Your task to perform on an android device: delete browsing data in the chrome app Image 0: 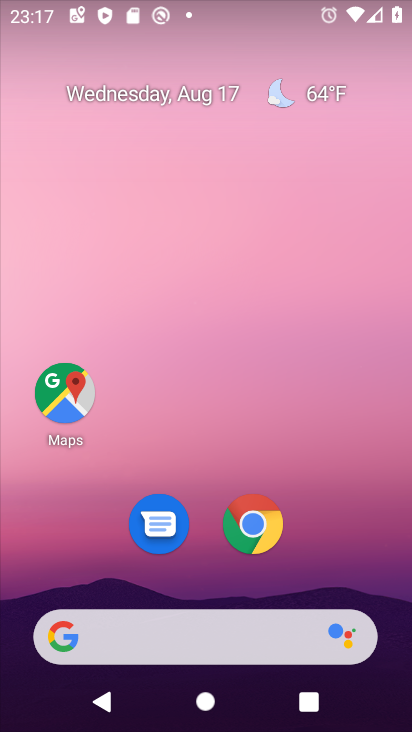
Step 0: click (255, 521)
Your task to perform on an android device: delete browsing data in the chrome app Image 1: 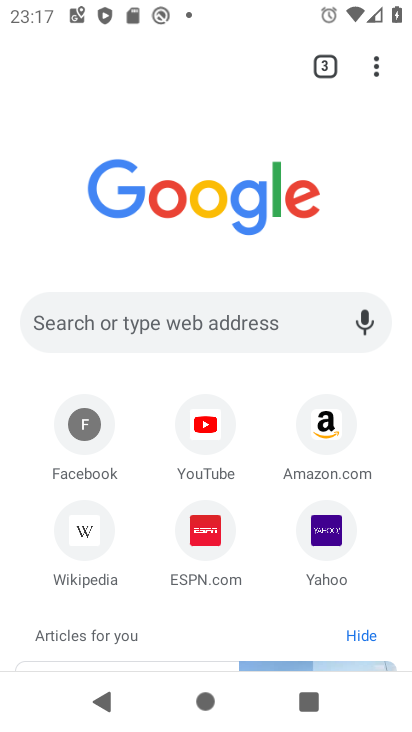
Step 1: click (375, 65)
Your task to perform on an android device: delete browsing data in the chrome app Image 2: 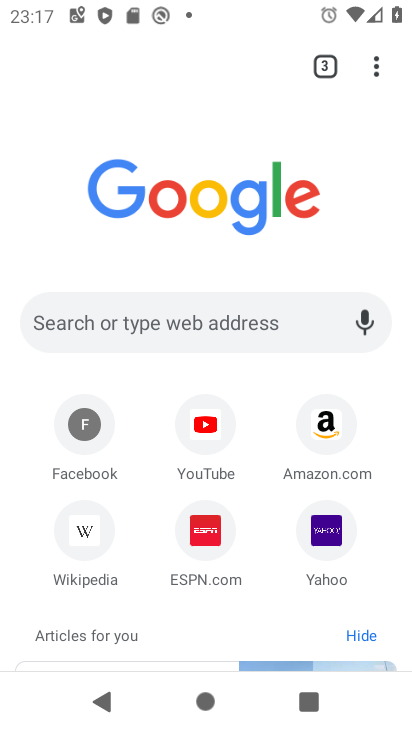
Step 2: click (375, 65)
Your task to perform on an android device: delete browsing data in the chrome app Image 3: 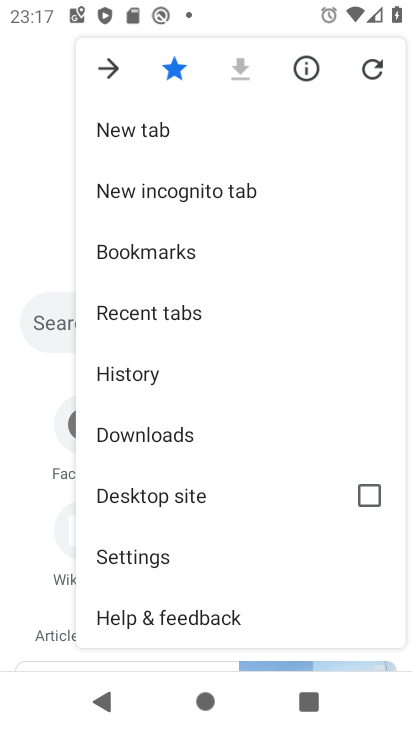
Step 3: click (149, 378)
Your task to perform on an android device: delete browsing data in the chrome app Image 4: 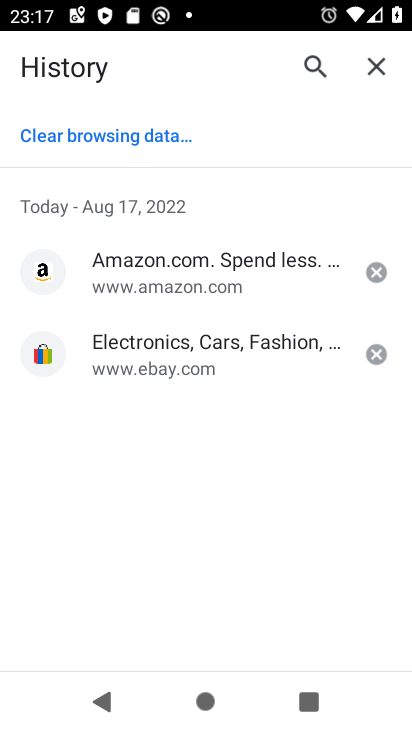
Step 4: click (125, 130)
Your task to perform on an android device: delete browsing data in the chrome app Image 5: 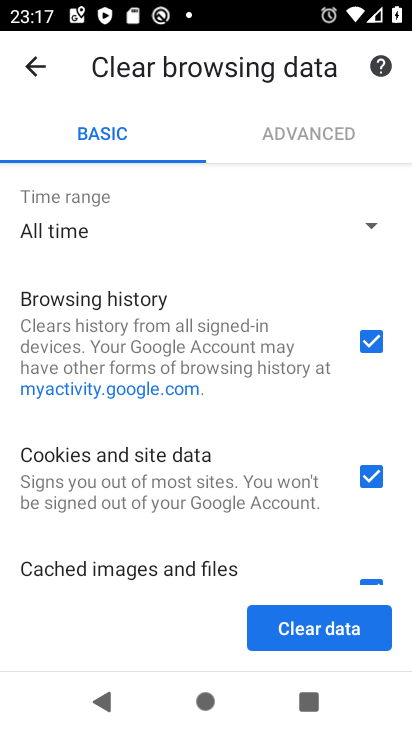
Step 5: click (316, 628)
Your task to perform on an android device: delete browsing data in the chrome app Image 6: 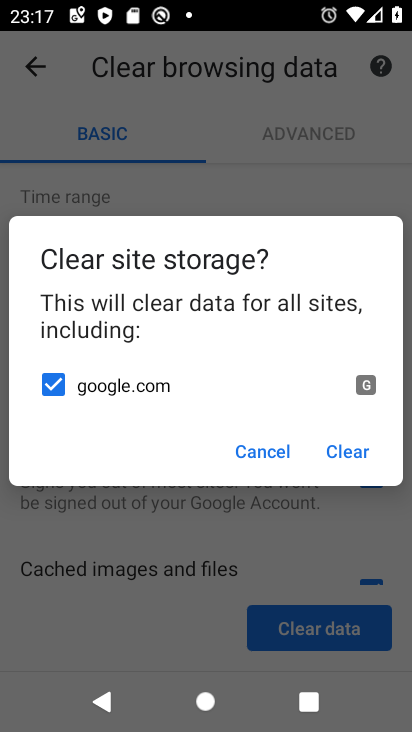
Step 6: click (353, 452)
Your task to perform on an android device: delete browsing data in the chrome app Image 7: 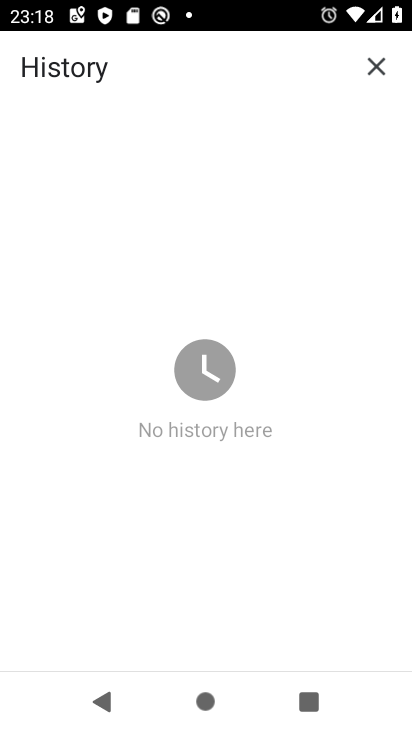
Step 7: task complete